Your task to perform on an android device: change text size in settings app Image 0: 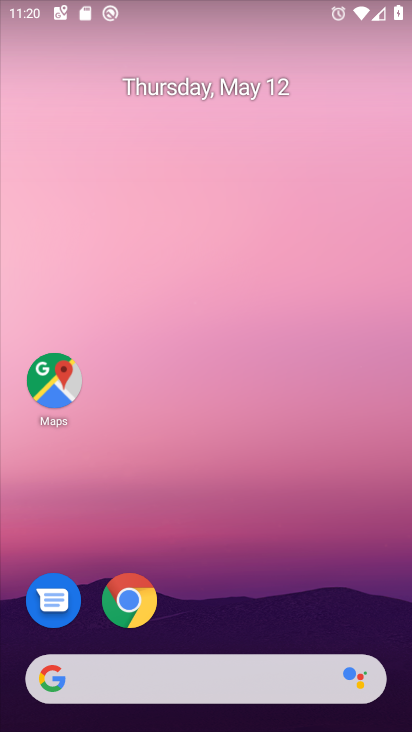
Step 0: drag from (210, 550) to (74, 201)
Your task to perform on an android device: change text size in settings app Image 1: 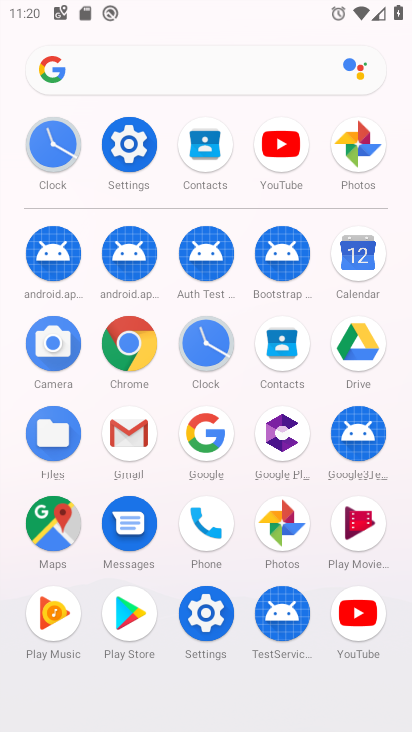
Step 1: click (198, 624)
Your task to perform on an android device: change text size in settings app Image 2: 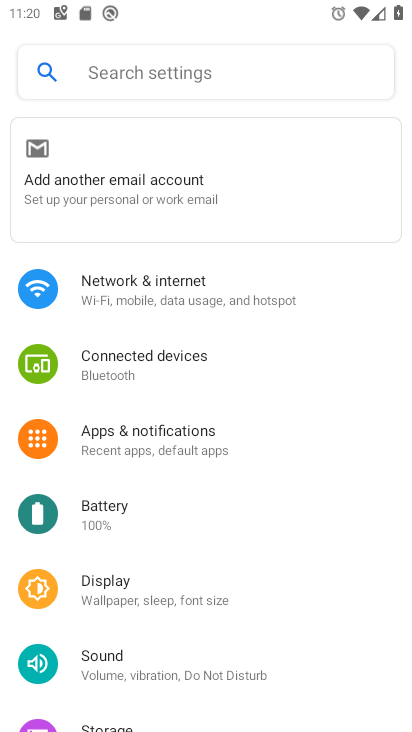
Step 2: click (120, 597)
Your task to perform on an android device: change text size in settings app Image 3: 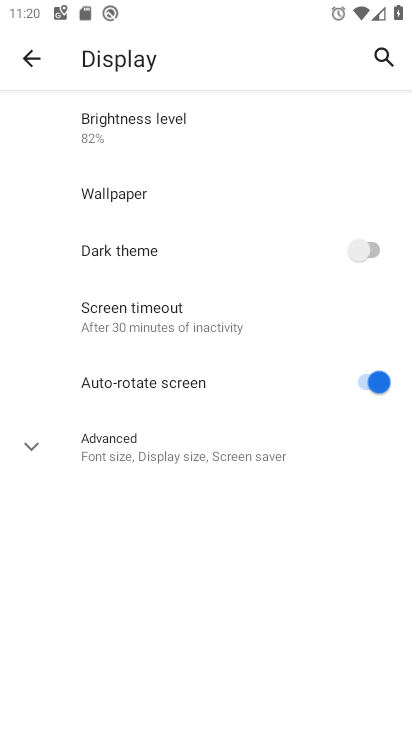
Step 3: click (118, 454)
Your task to perform on an android device: change text size in settings app Image 4: 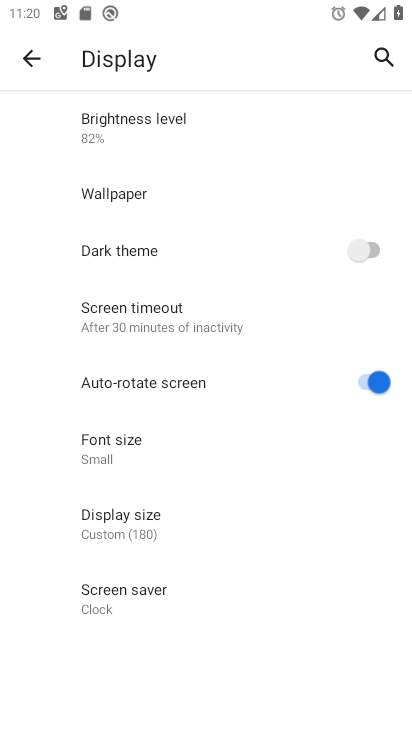
Step 4: click (118, 454)
Your task to perform on an android device: change text size in settings app Image 5: 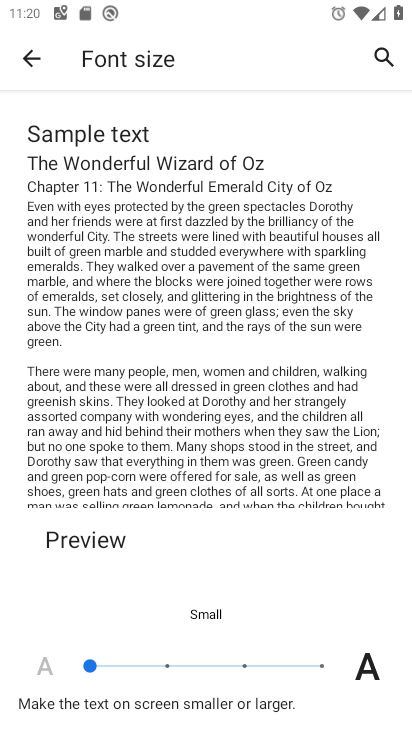
Step 5: click (99, 668)
Your task to perform on an android device: change text size in settings app Image 6: 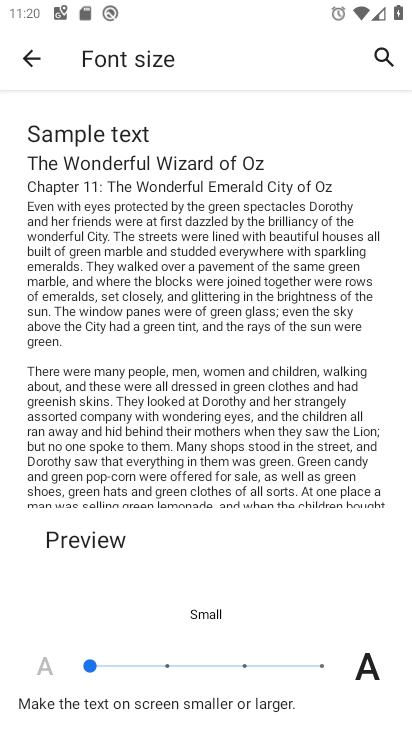
Step 6: click (107, 661)
Your task to perform on an android device: change text size in settings app Image 7: 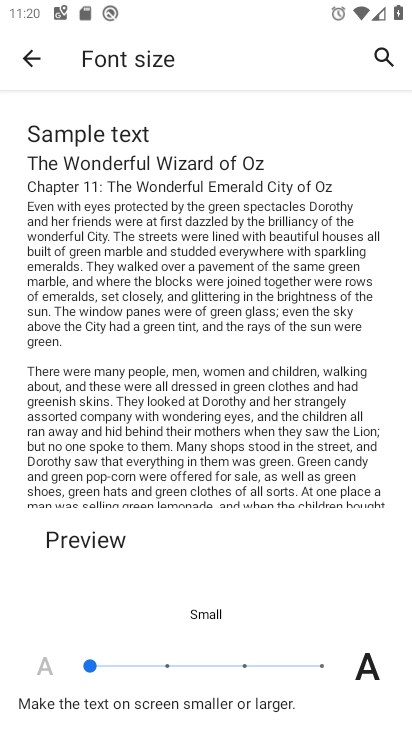
Step 7: click (116, 663)
Your task to perform on an android device: change text size in settings app Image 8: 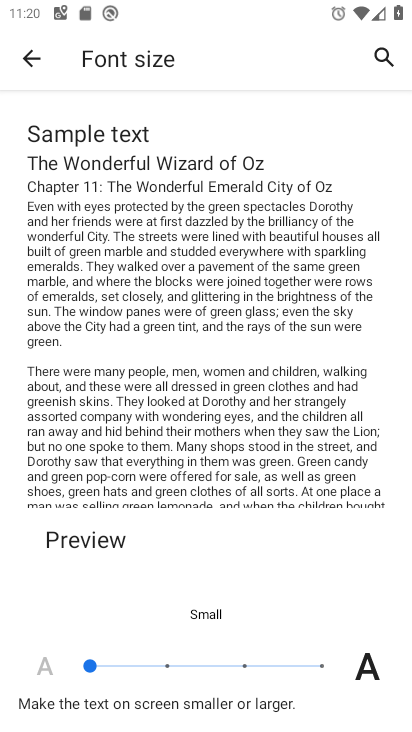
Step 8: click (168, 664)
Your task to perform on an android device: change text size in settings app Image 9: 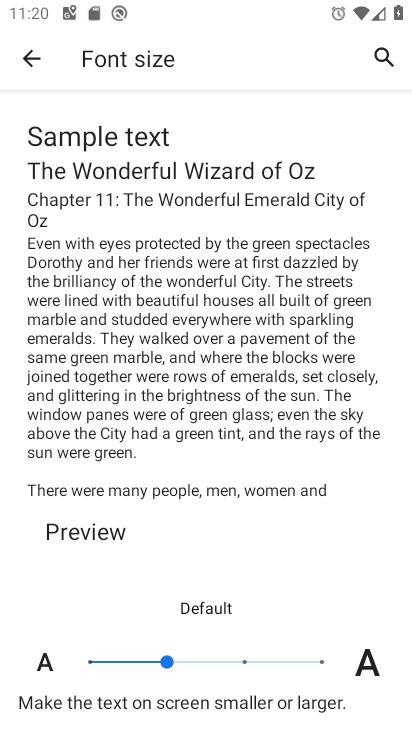
Step 9: task complete